Your task to perform on an android device: toggle notifications settings in the gmail app Image 0: 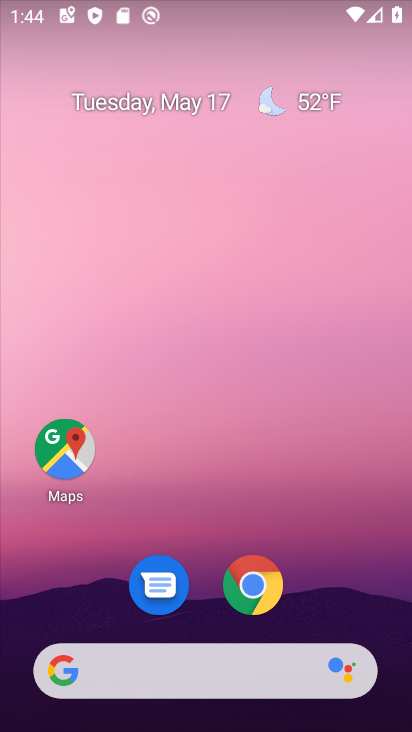
Step 0: drag from (320, 523) to (288, 77)
Your task to perform on an android device: toggle notifications settings in the gmail app Image 1: 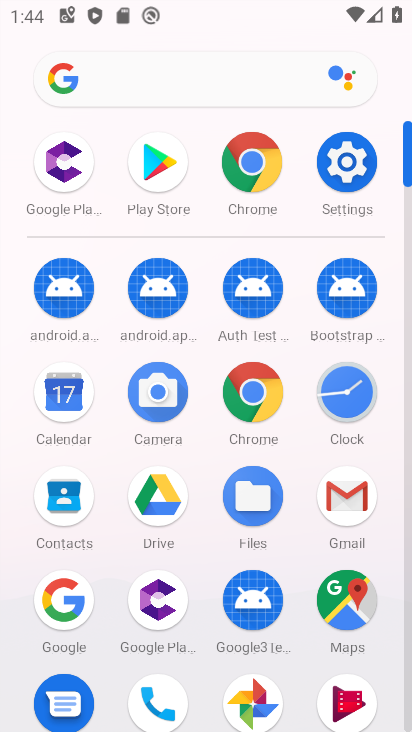
Step 1: click (345, 495)
Your task to perform on an android device: toggle notifications settings in the gmail app Image 2: 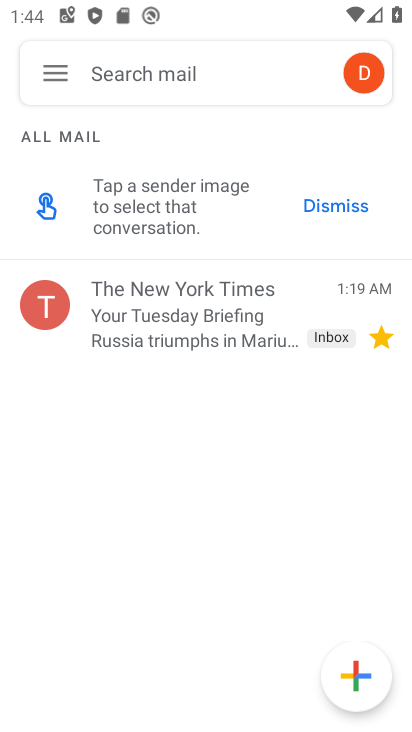
Step 2: click (62, 65)
Your task to perform on an android device: toggle notifications settings in the gmail app Image 3: 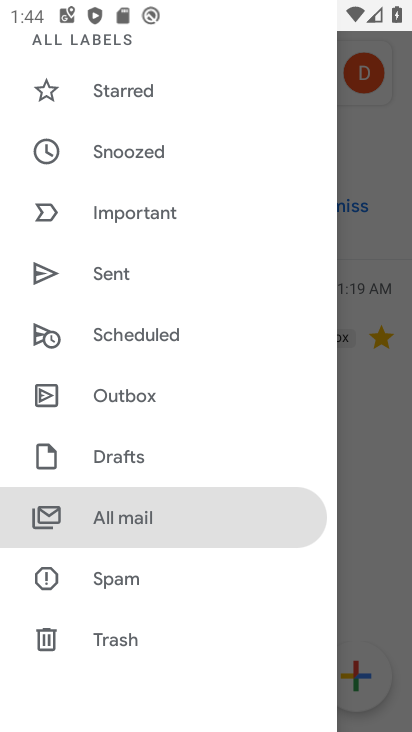
Step 3: drag from (170, 578) to (163, 140)
Your task to perform on an android device: toggle notifications settings in the gmail app Image 4: 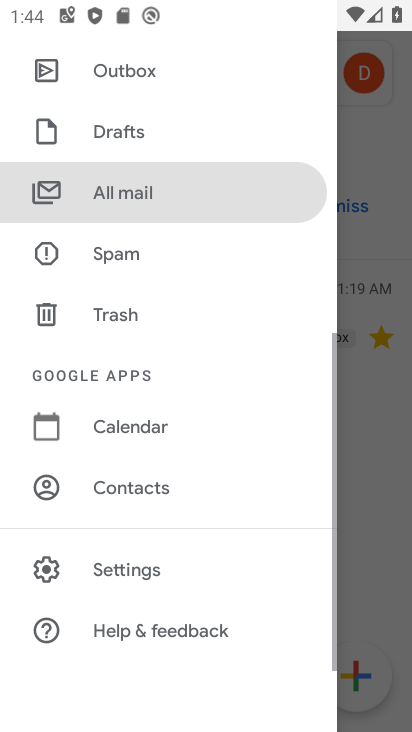
Step 4: click (146, 574)
Your task to perform on an android device: toggle notifications settings in the gmail app Image 5: 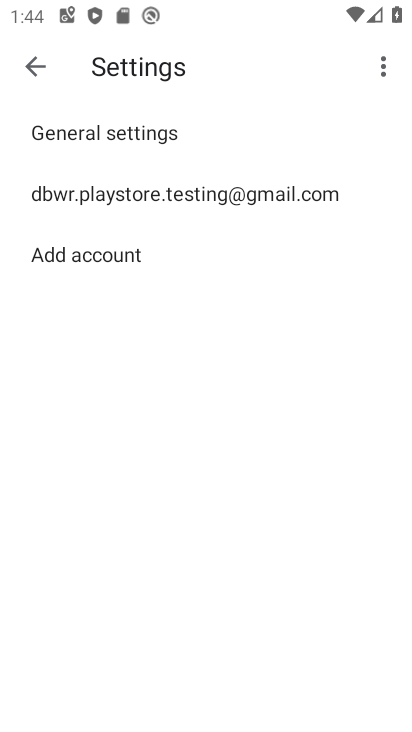
Step 5: click (256, 185)
Your task to perform on an android device: toggle notifications settings in the gmail app Image 6: 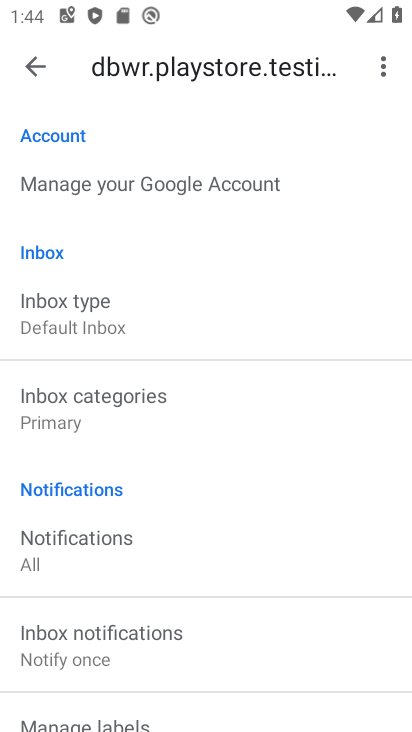
Step 6: drag from (214, 522) to (231, 175)
Your task to perform on an android device: toggle notifications settings in the gmail app Image 7: 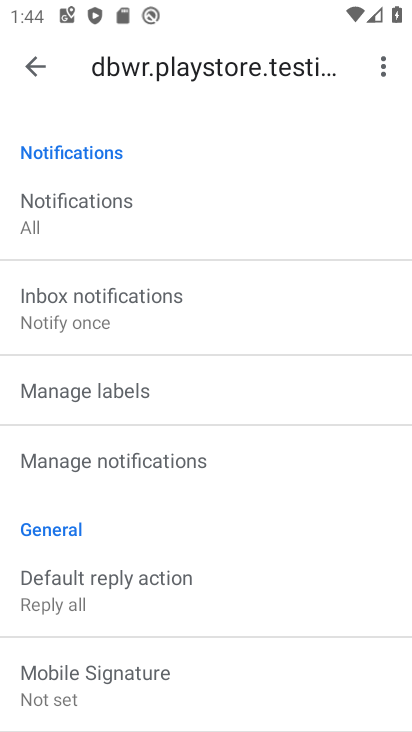
Step 7: click (196, 462)
Your task to perform on an android device: toggle notifications settings in the gmail app Image 8: 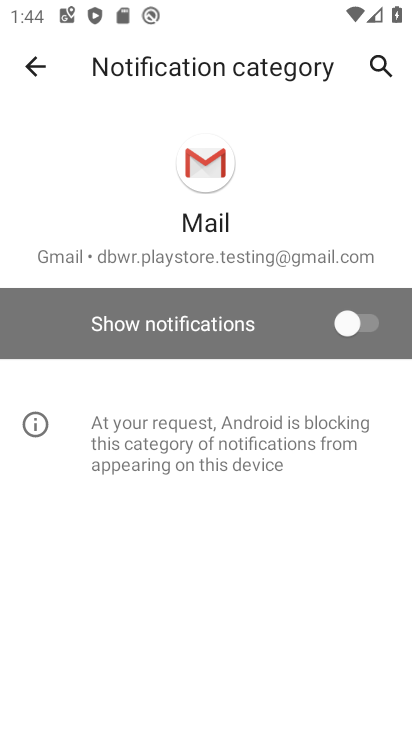
Step 8: click (353, 317)
Your task to perform on an android device: toggle notifications settings in the gmail app Image 9: 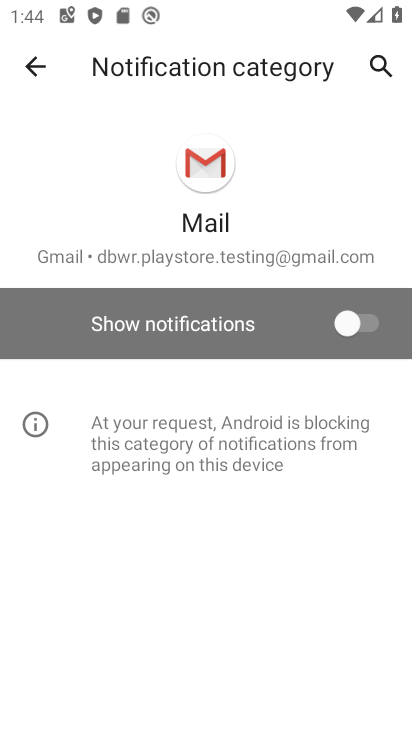
Step 9: click (361, 315)
Your task to perform on an android device: toggle notifications settings in the gmail app Image 10: 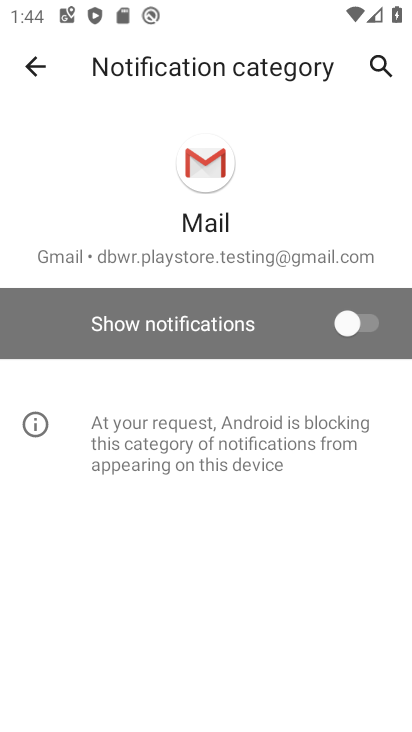
Step 10: click (38, 62)
Your task to perform on an android device: toggle notifications settings in the gmail app Image 11: 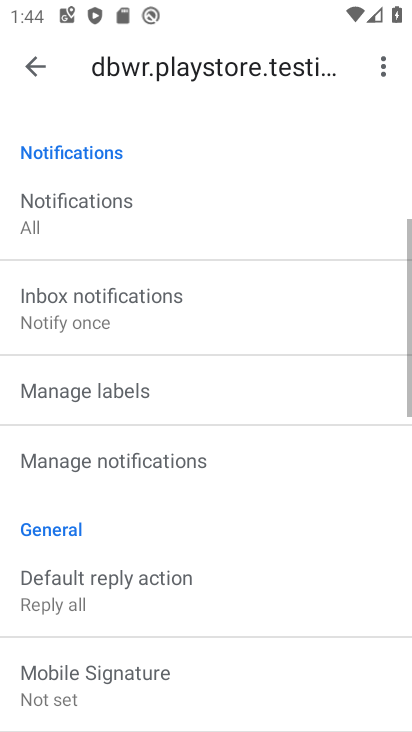
Step 11: click (38, 60)
Your task to perform on an android device: toggle notifications settings in the gmail app Image 12: 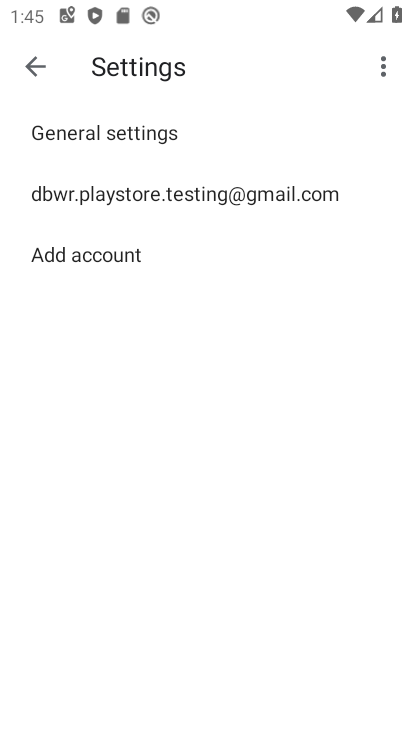
Step 12: click (93, 125)
Your task to perform on an android device: toggle notifications settings in the gmail app Image 13: 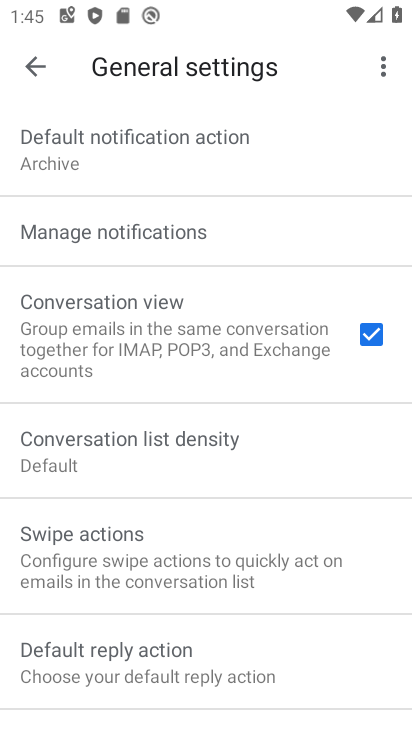
Step 13: click (240, 226)
Your task to perform on an android device: toggle notifications settings in the gmail app Image 14: 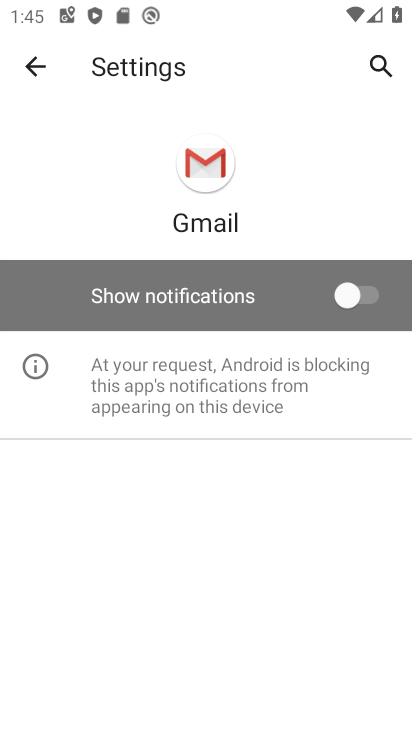
Step 14: click (358, 294)
Your task to perform on an android device: toggle notifications settings in the gmail app Image 15: 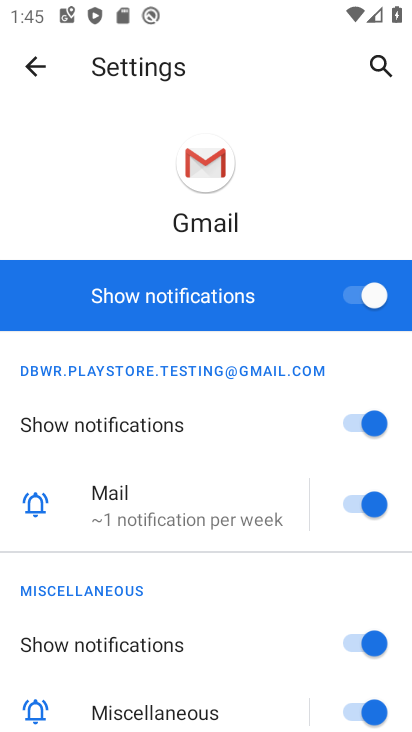
Step 15: task complete